Your task to perform on an android device: Go to network settings Image 0: 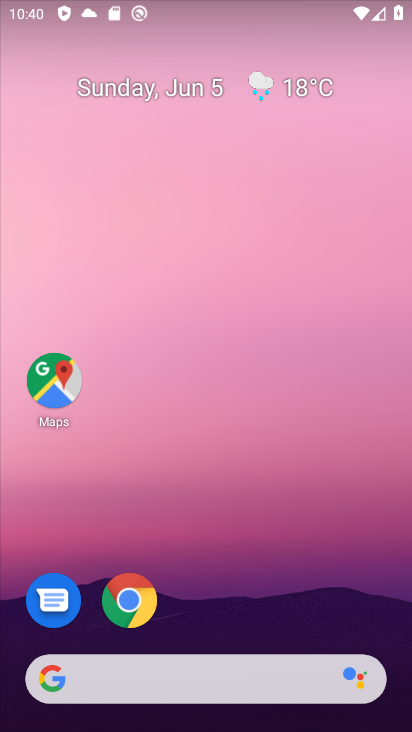
Step 0: drag from (259, 574) to (195, 208)
Your task to perform on an android device: Go to network settings Image 1: 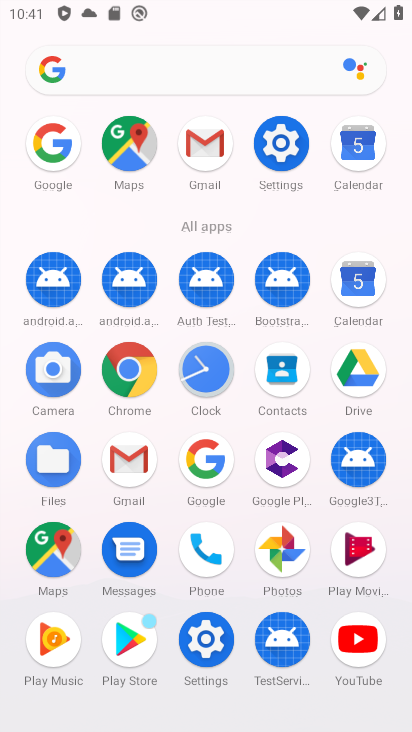
Step 1: click (277, 161)
Your task to perform on an android device: Go to network settings Image 2: 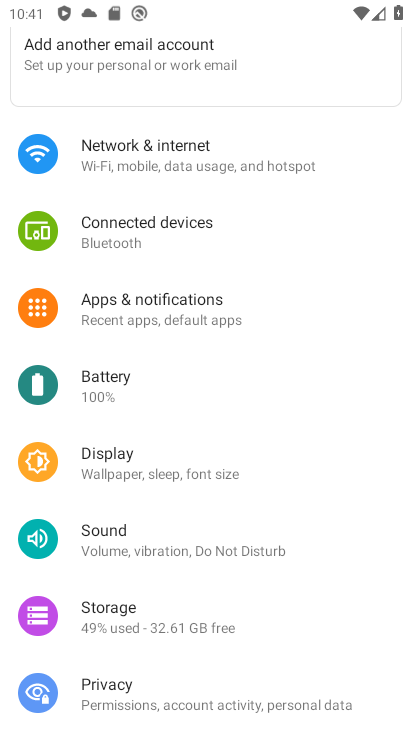
Step 2: click (156, 164)
Your task to perform on an android device: Go to network settings Image 3: 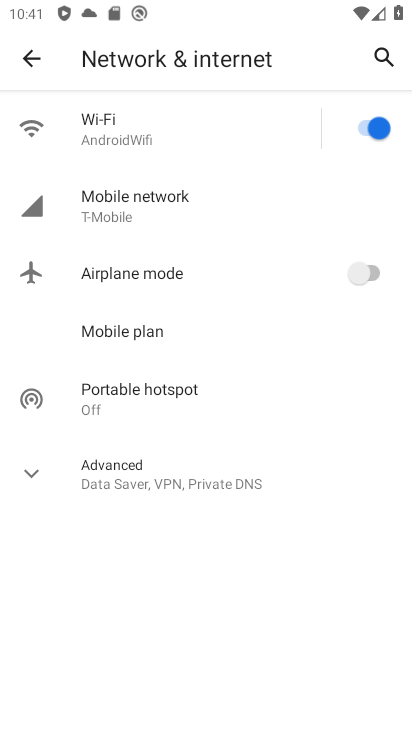
Step 3: click (129, 207)
Your task to perform on an android device: Go to network settings Image 4: 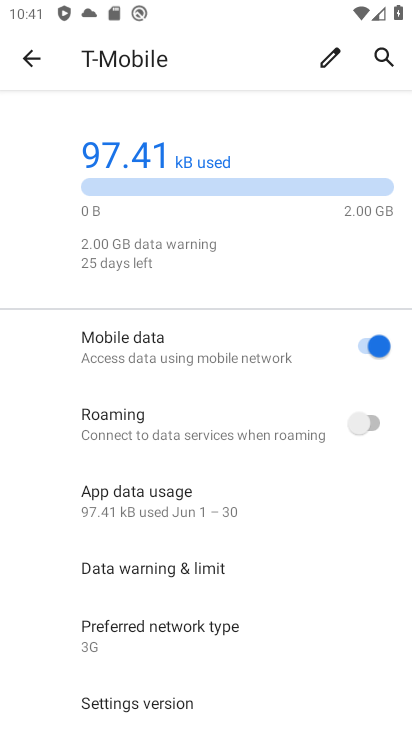
Step 4: task complete